Your task to perform on an android device: add a label to a message in the gmail app Image 0: 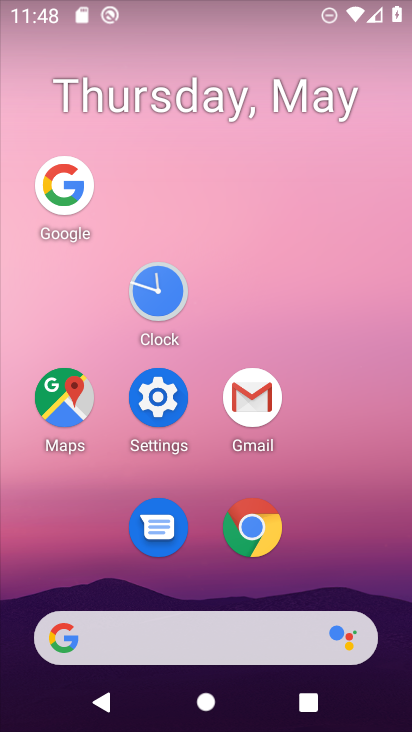
Step 0: click (244, 387)
Your task to perform on an android device: add a label to a message in the gmail app Image 1: 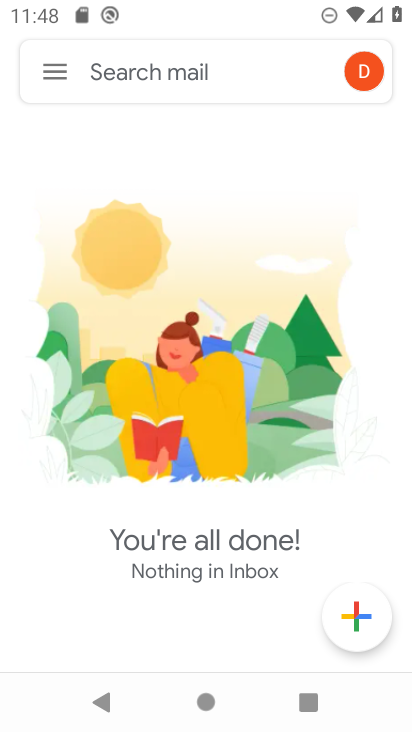
Step 1: click (62, 89)
Your task to perform on an android device: add a label to a message in the gmail app Image 2: 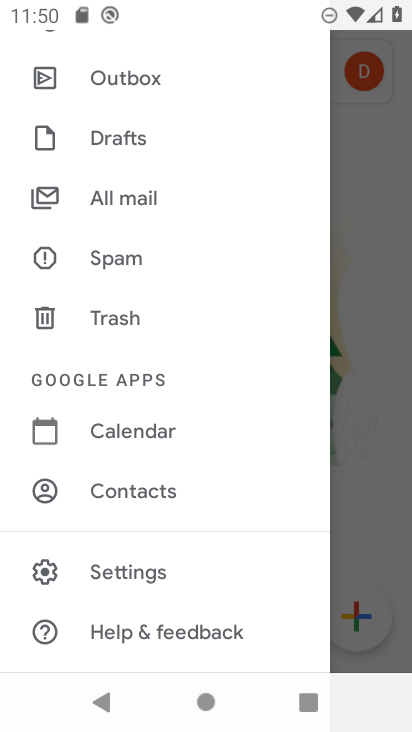
Step 2: click (191, 205)
Your task to perform on an android device: add a label to a message in the gmail app Image 3: 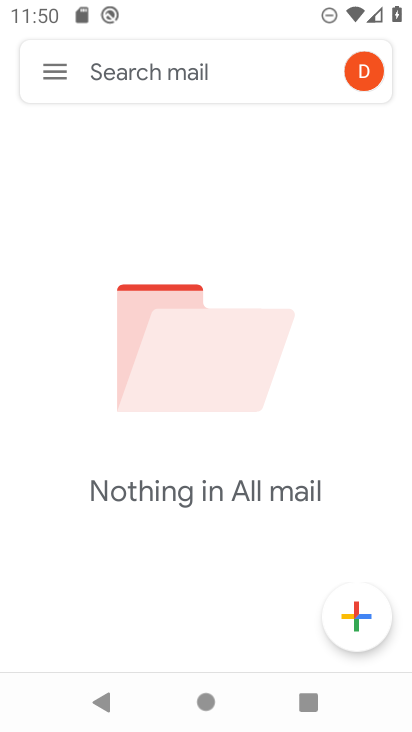
Step 3: click (59, 61)
Your task to perform on an android device: add a label to a message in the gmail app Image 4: 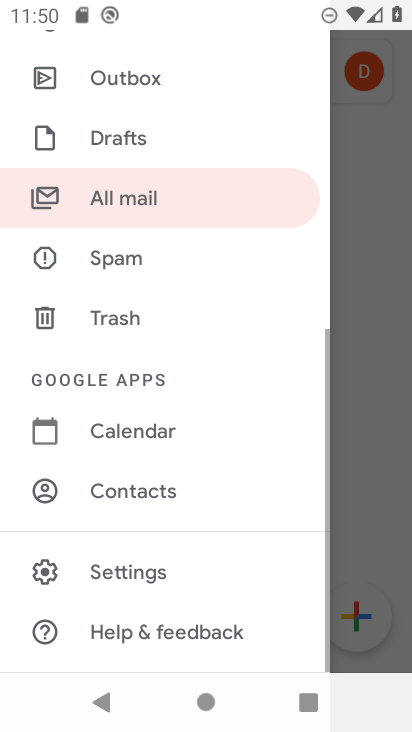
Step 4: task complete